Your task to perform on an android device: Show me popular games on the Play Store Image 0: 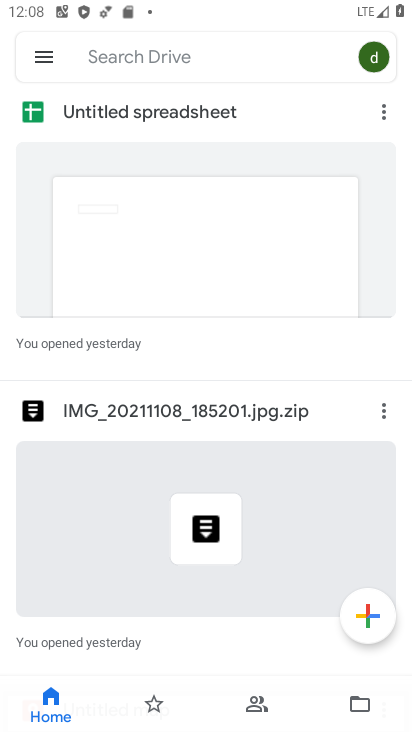
Step 0: press home button
Your task to perform on an android device: Show me popular games on the Play Store Image 1: 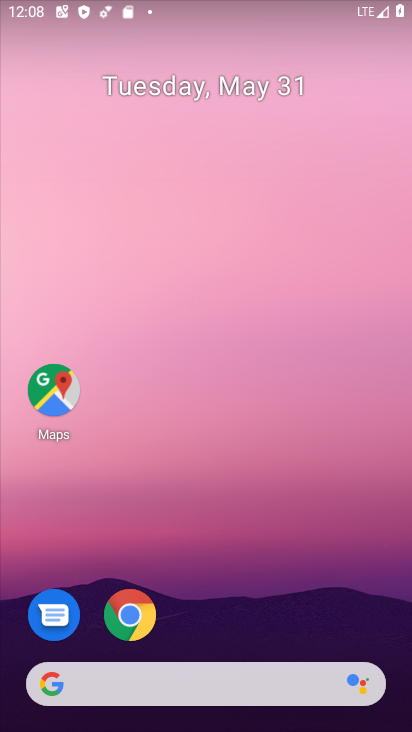
Step 1: drag from (200, 531) to (283, 3)
Your task to perform on an android device: Show me popular games on the Play Store Image 2: 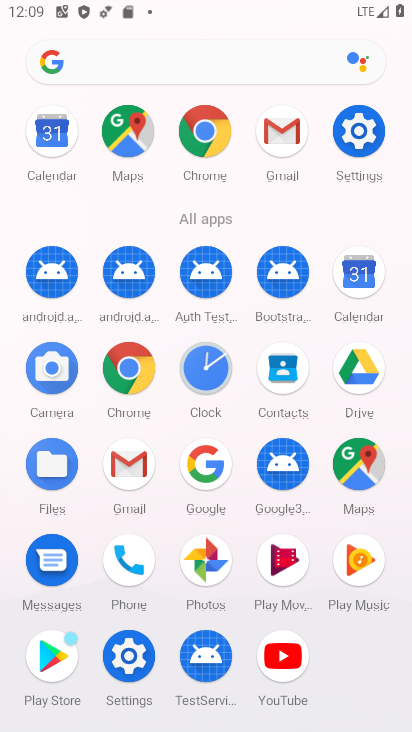
Step 2: click (60, 664)
Your task to perform on an android device: Show me popular games on the Play Store Image 3: 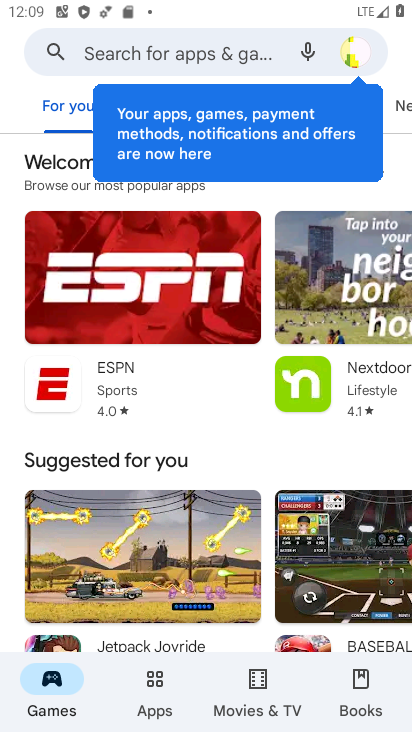
Step 3: drag from (85, 111) to (0, 99)
Your task to perform on an android device: Show me popular games on the Play Store Image 4: 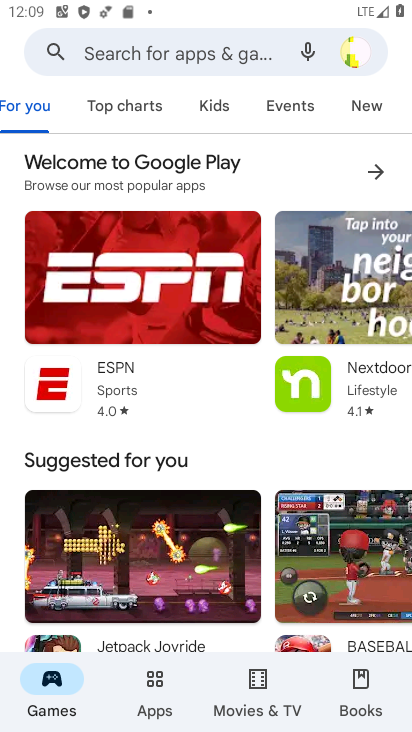
Step 4: click (143, 103)
Your task to perform on an android device: Show me popular games on the Play Store Image 5: 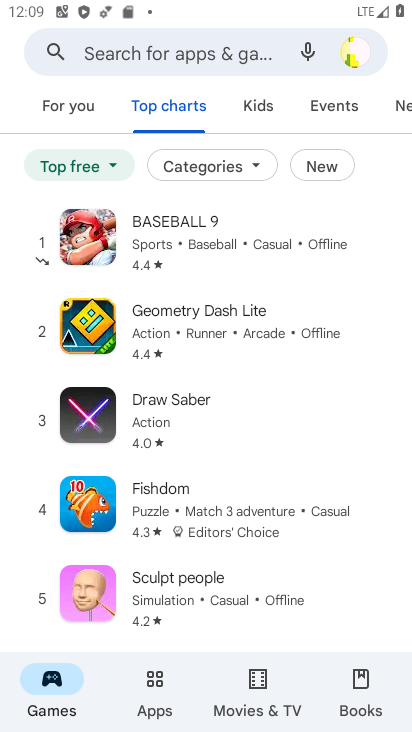
Step 5: task complete